Your task to perform on an android device: Open privacy settings Image 0: 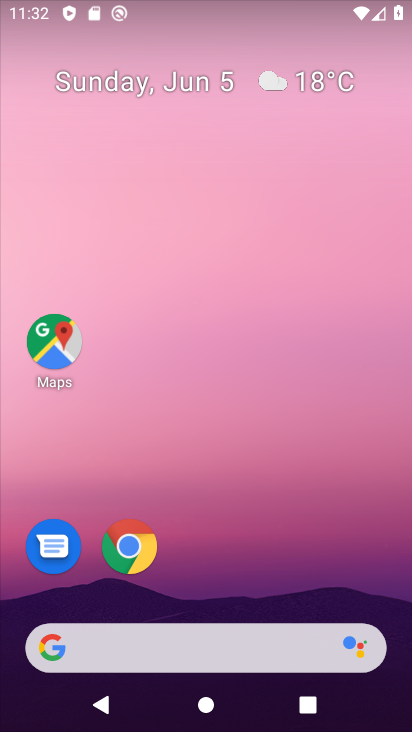
Step 0: drag from (295, 531) to (252, 45)
Your task to perform on an android device: Open privacy settings Image 1: 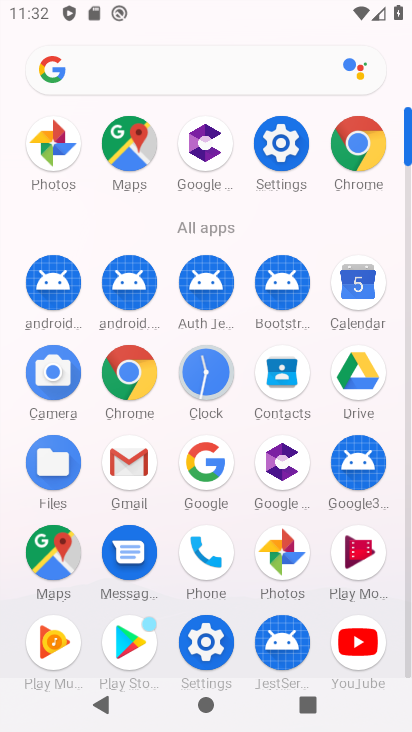
Step 1: click (280, 154)
Your task to perform on an android device: Open privacy settings Image 2: 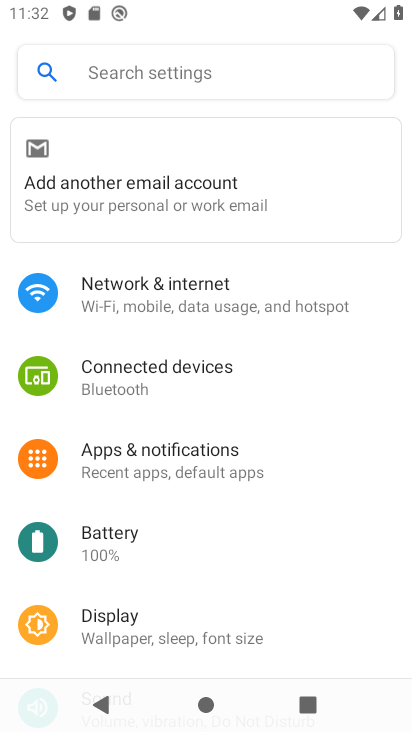
Step 2: drag from (258, 590) to (239, 208)
Your task to perform on an android device: Open privacy settings Image 3: 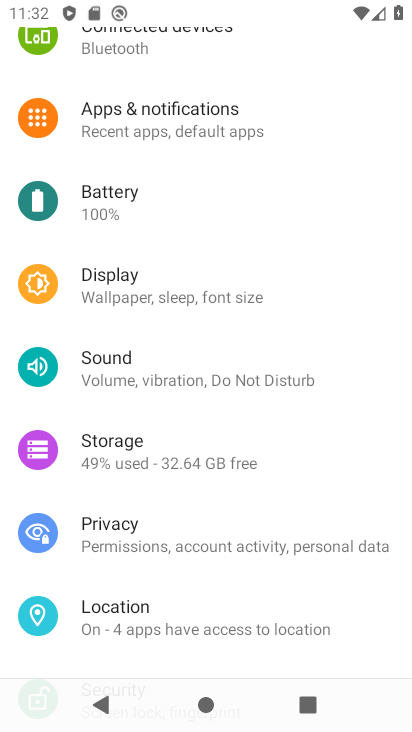
Step 3: click (151, 538)
Your task to perform on an android device: Open privacy settings Image 4: 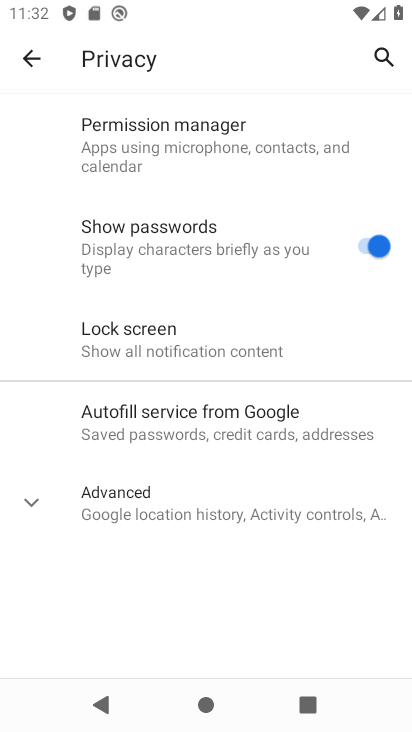
Step 4: task complete